Your task to perform on an android device: turn on the 12-hour format for clock Image 0: 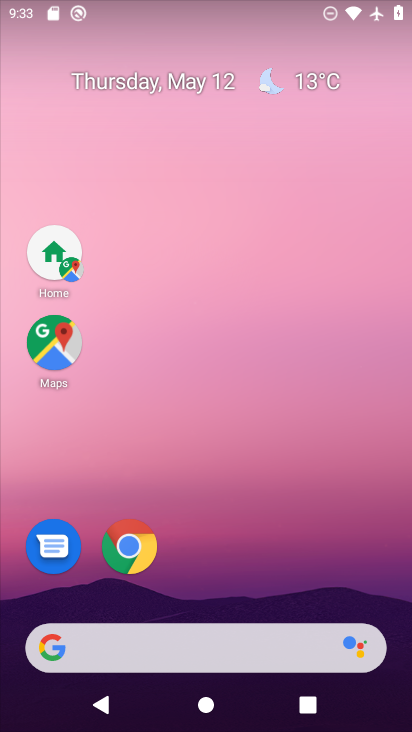
Step 0: drag from (135, 649) to (244, 186)
Your task to perform on an android device: turn on the 12-hour format for clock Image 1: 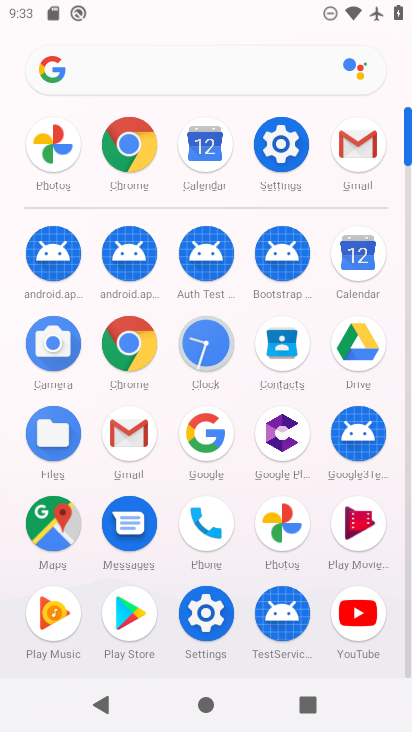
Step 1: click (199, 347)
Your task to perform on an android device: turn on the 12-hour format for clock Image 2: 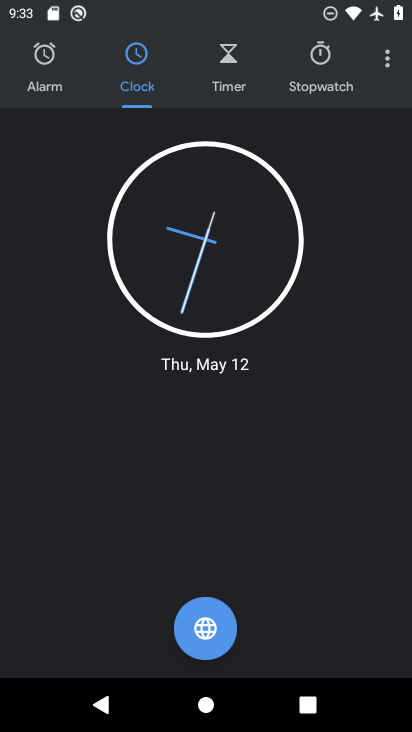
Step 2: click (387, 65)
Your task to perform on an android device: turn on the 12-hour format for clock Image 3: 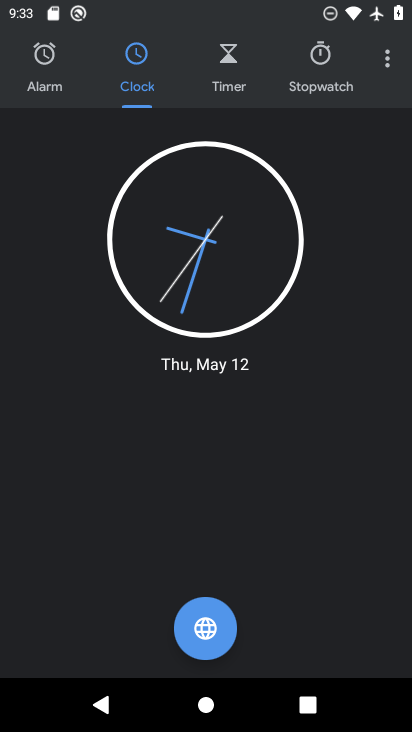
Step 3: click (383, 67)
Your task to perform on an android device: turn on the 12-hour format for clock Image 4: 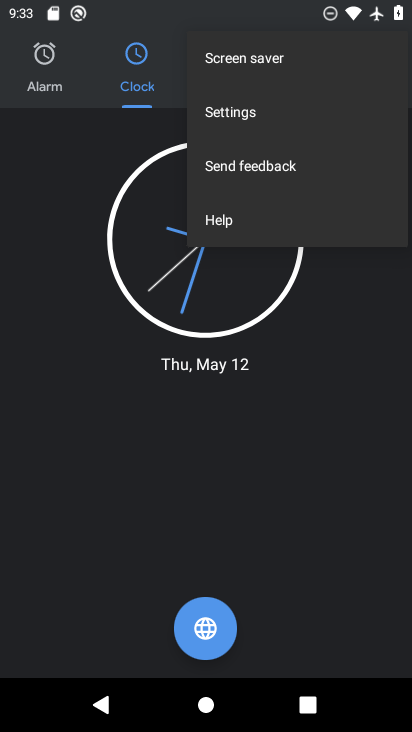
Step 4: click (265, 119)
Your task to perform on an android device: turn on the 12-hour format for clock Image 5: 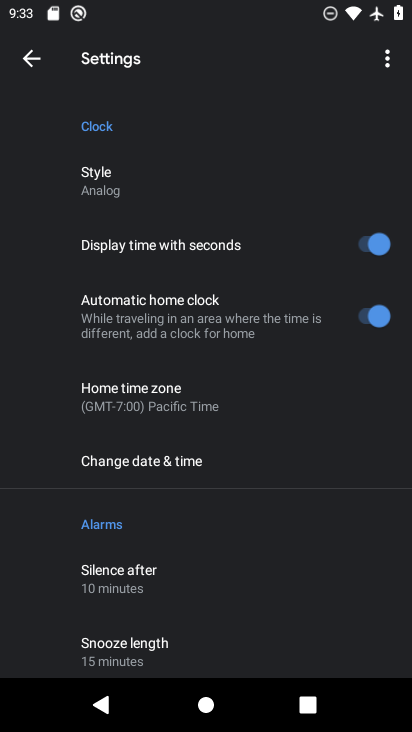
Step 5: click (175, 462)
Your task to perform on an android device: turn on the 12-hour format for clock Image 6: 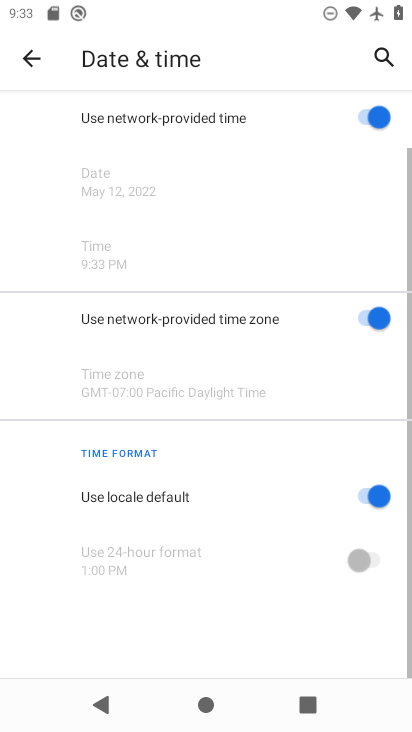
Step 6: task complete